Your task to perform on an android device: open device folders in google photos Image 0: 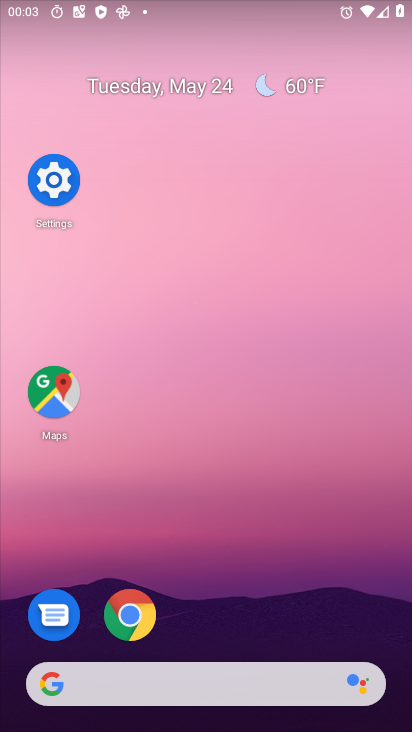
Step 0: drag from (253, 602) to (266, 122)
Your task to perform on an android device: open device folders in google photos Image 1: 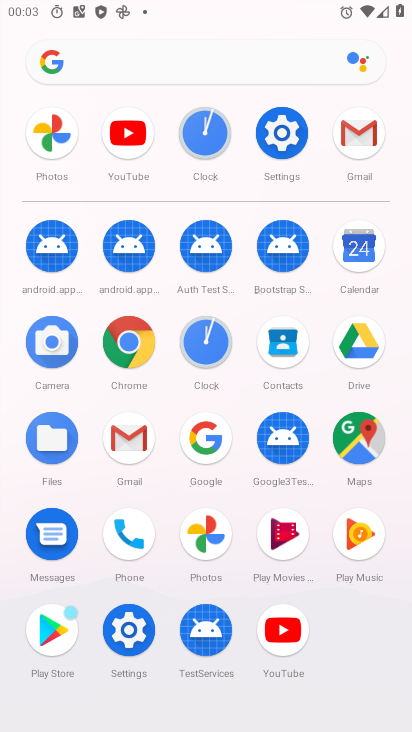
Step 1: click (214, 534)
Your task to perform on an android device: open device folders in google photos Image 2: 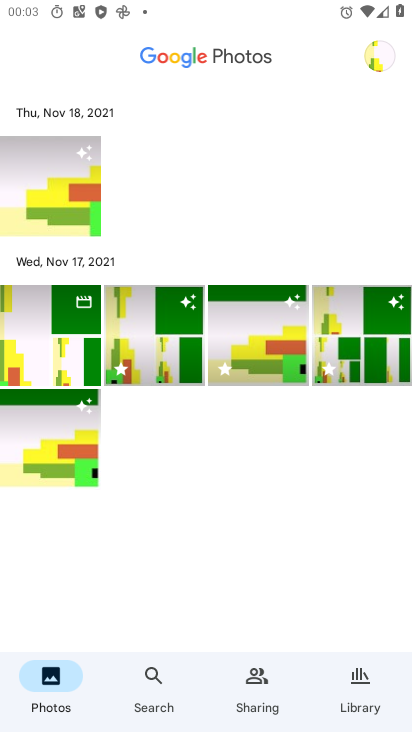
Step 2: click (383, 58)
Your task to perform on an android device: open device folders in google photos Image 3: 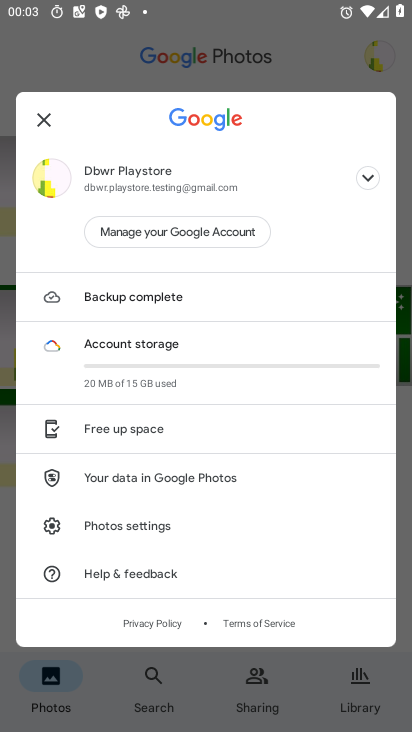
Step 3: press back button
Your task to perform on an android device: open device folders in google photos Image 4: 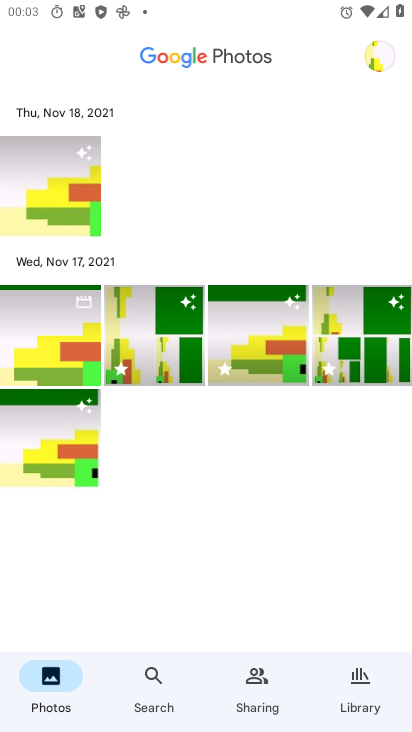
Step 4: click (358, 690)
Your task to perform on an android device: open device folders in google photos Image 5: 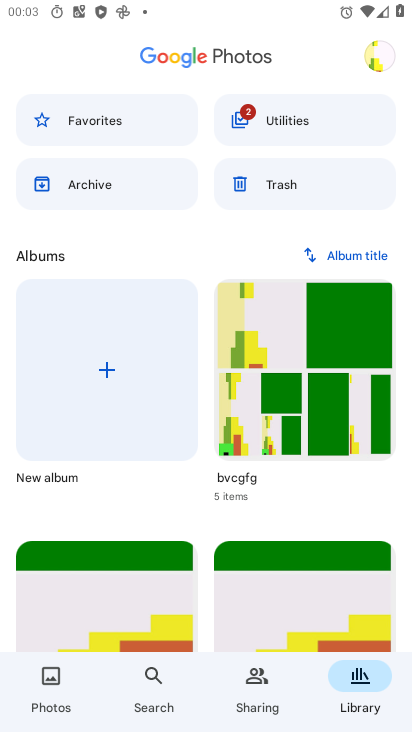
Step 5: task complete